Your task to perform on an android device: Go to Google Image 0: 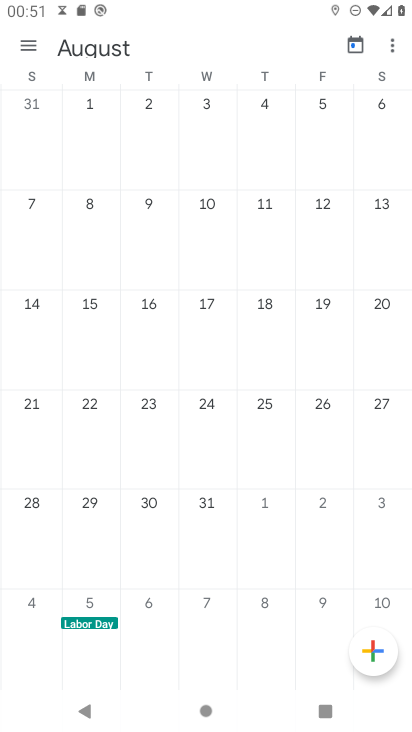
Step 0: press home button
Your task to perform on an android device: Go to Google Image 1: 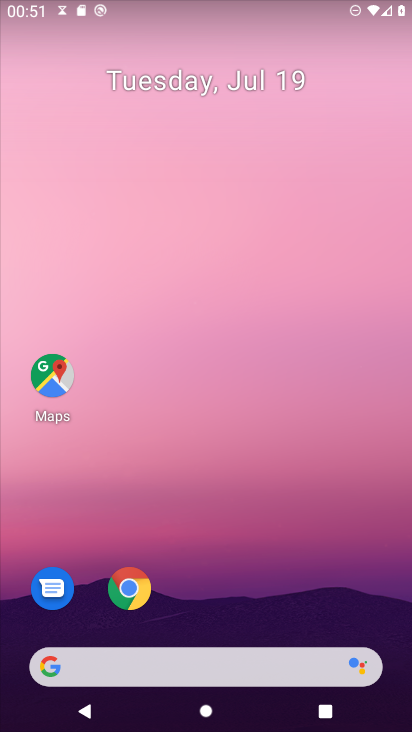
Step 1: drag from (293, 574) to (356, 439)
Your task to perform on an android device: Go to Google Image 2: 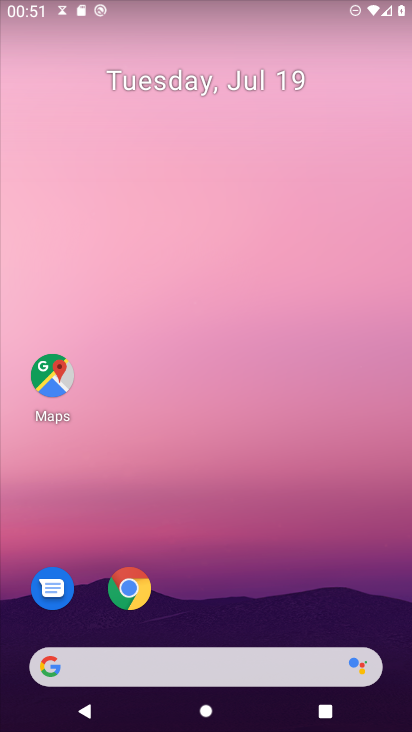
Step 2: drag from (233, 580) to (389, 498)
Your task to perform on an android device: Go to Google Image 3: 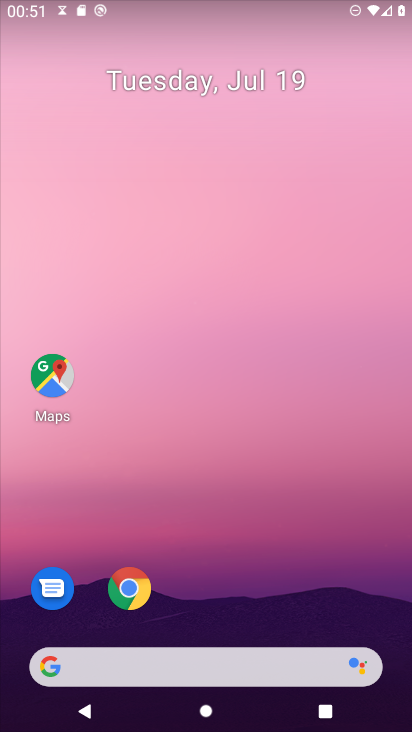
Step 3: drag from (275, 578) to (401, 595)
Your task to perform on an android device: Go to Google Image 4: 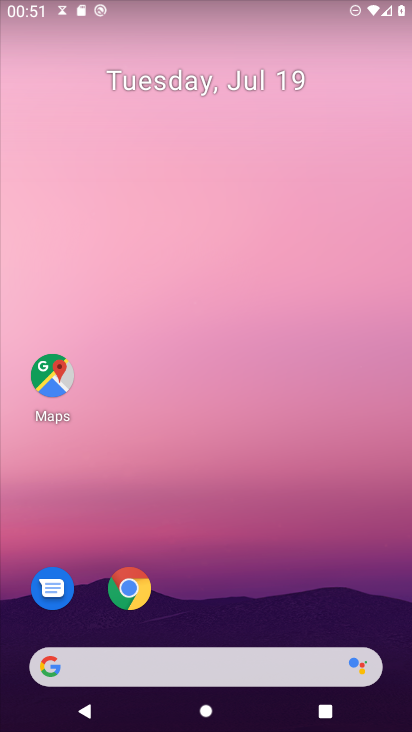
Step 4: click (221, 596)
Your task to perform on an android device: Go to Google Image 5: 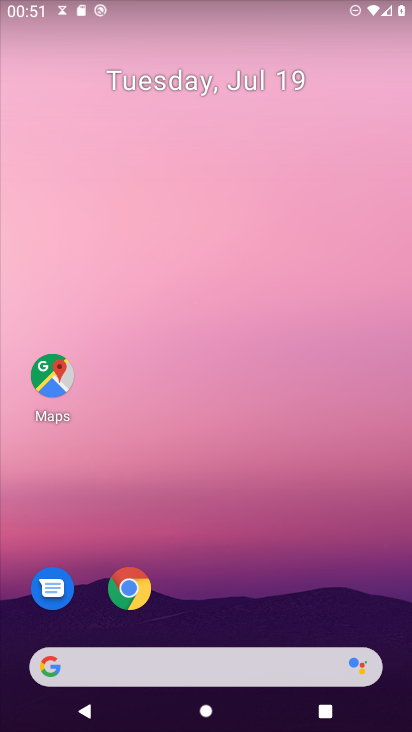
Step 5: press home button
Your task to perform on an android device: Go to Google Image 6: 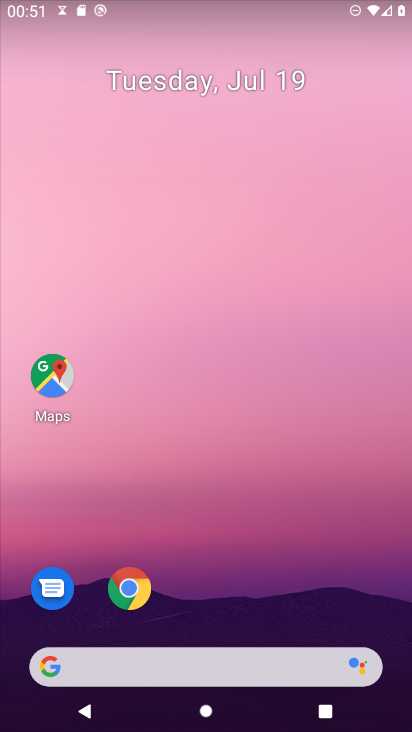
Step 6: drag from (221, 596) to (396, 554)
Your task to perform on an android device: Go to Google Image 7: 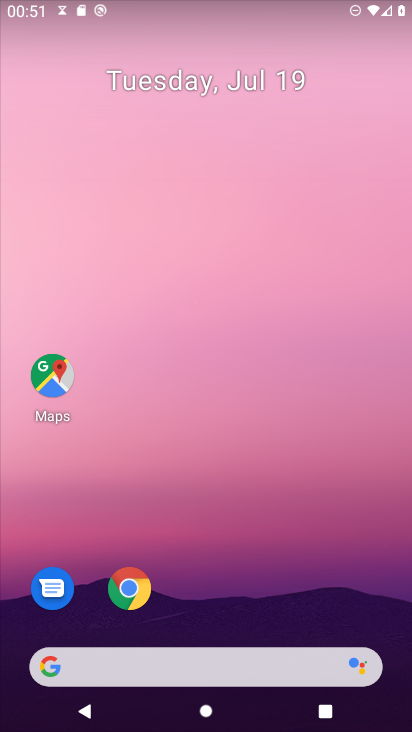
Step 7: drag from (286, 578) to (397, 397)
Your task to perform on an android device: Go to Google Image 8: 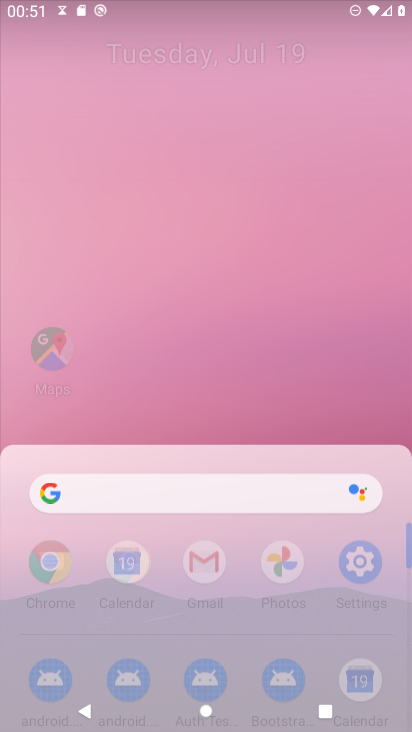
Step 8: drag from (306, 556) to (283, 38)
Your task to perform on an android device: Go to Google Image 9: 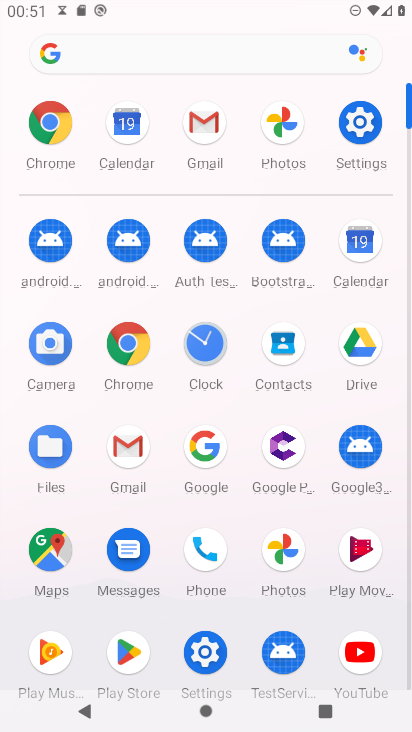
Step 9: drag from (220, 551) to (209, 20)
Your task to perform on an android device: Go to Google Image 10: 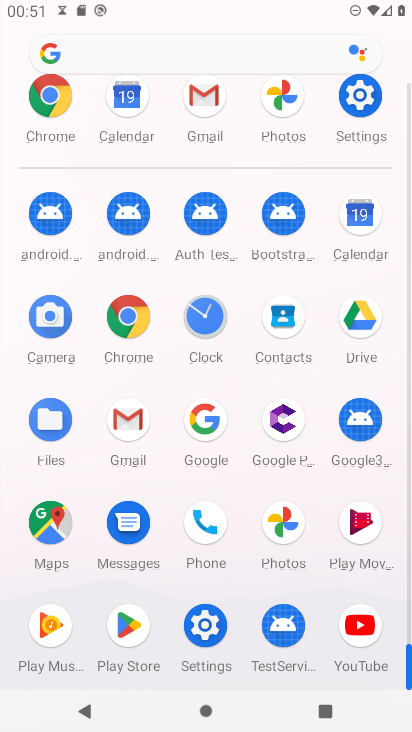
Step 10: click (200, 420)
Your task to perform on an android device: Go to Google Image 11: 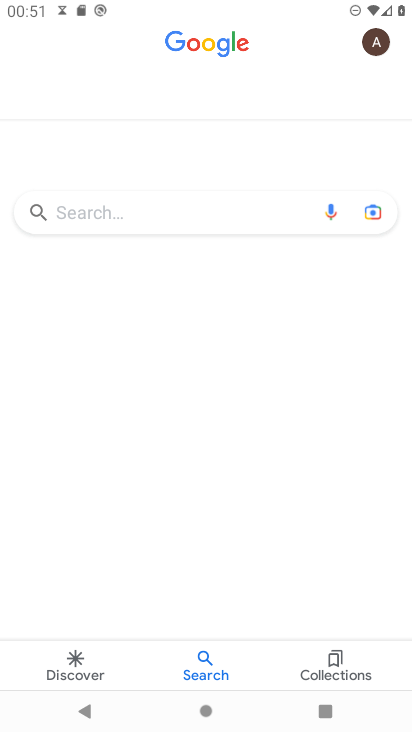
Step 11: task complete